Your task to perform on an android device: see tabs open on other devices in the chrome app Image 0: 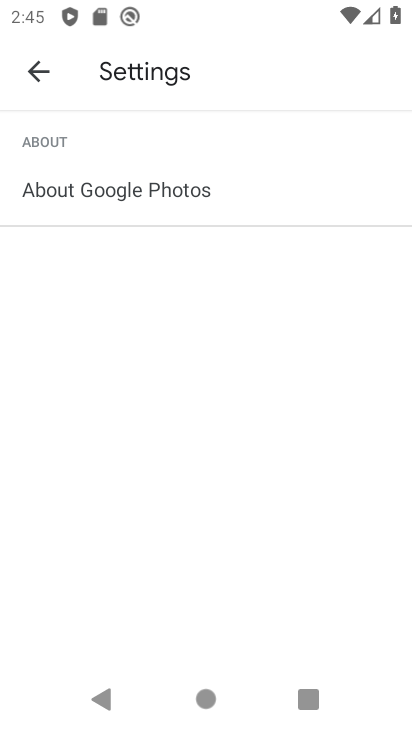
Step 0: click (25, 58)
Your task to perform on an android device: see tabs open on other devices in the chrome app Image 1: 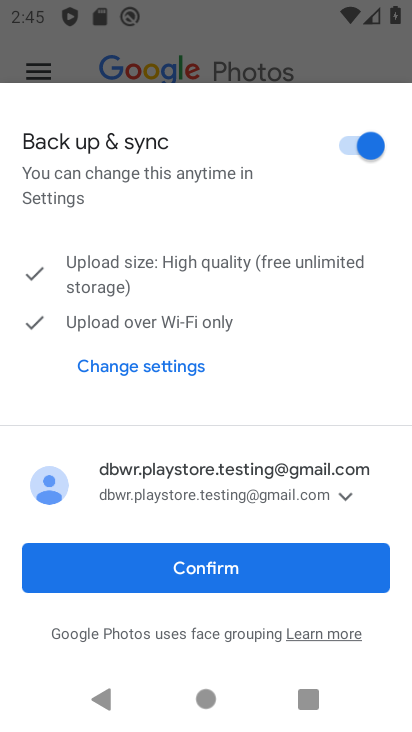
Step 1: click (317, 563)
Your task to perform on an android device: see tabs open on other devices in the chrome app Image 2: 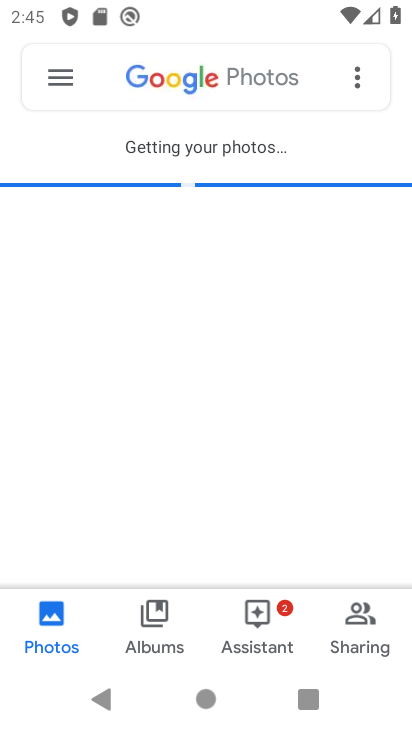
Step 2: press home button
Your task to perform on an android device: see tabs open on other devices in the chrome app Image 3: 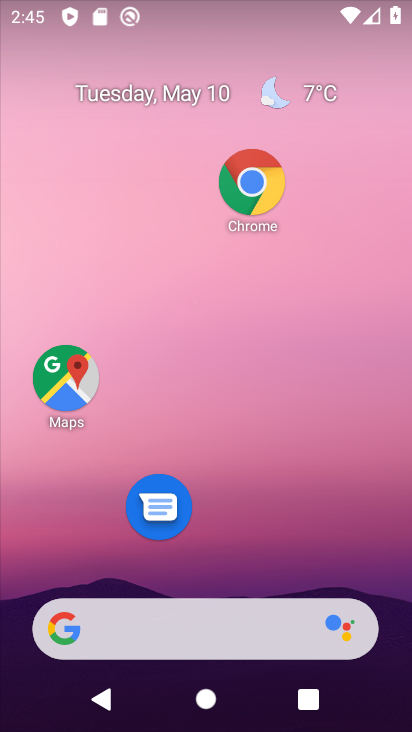
Step 3: click (276, 218)
Your task to perform on an android device: see tabs open on other devices in the chrome app Image 4: 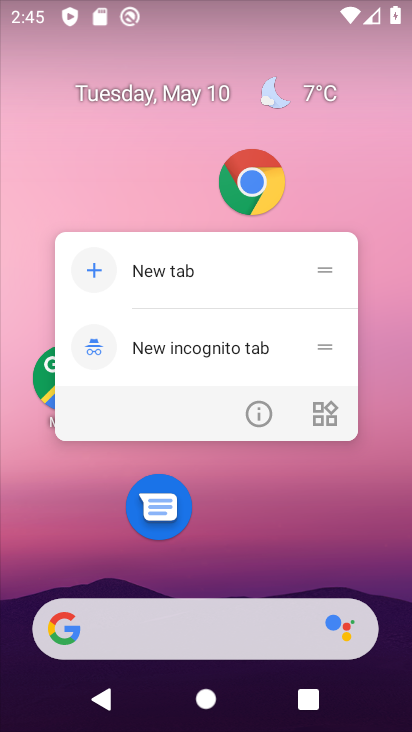
Step 4: click (264, 193)
Your task to perform on an android device: see tabs open on other devices in the chrome app Image 5: 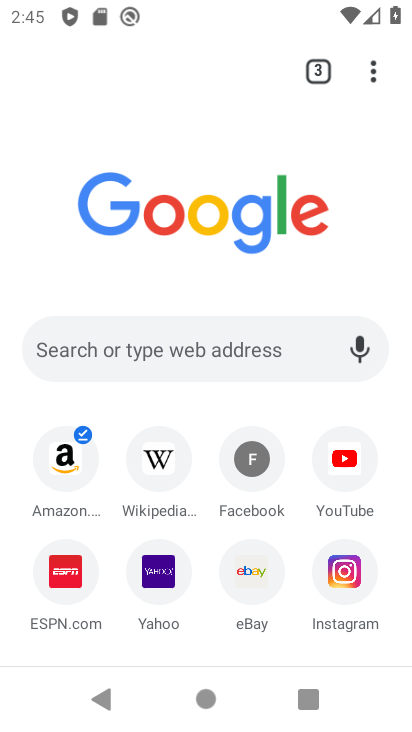
Step 5: click (376, 85)
Your task to perform on an android device: see tabs open on other devices in the chrome app Image 6: 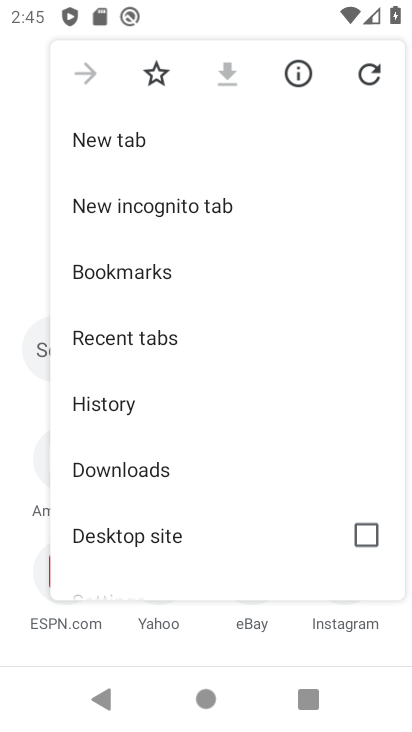
Step 6: click (36, 272)
Your task to perform on an android device: see tabs open on other devices in the chrome app Image 7: 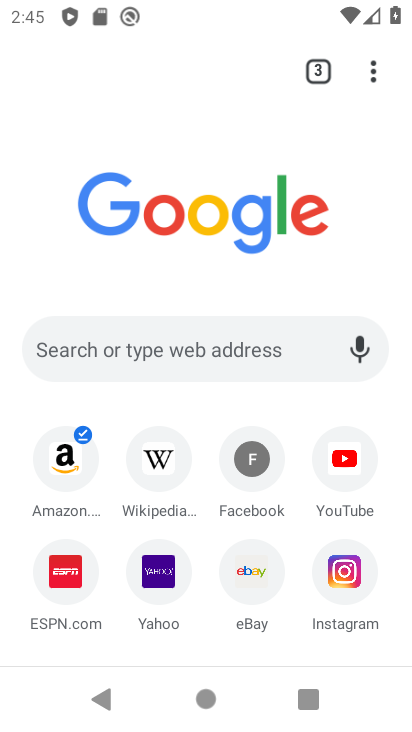
Step 7: click (373, 86)
Your task to perform on an android device: see tabs open on other devices in the chrome app Image 8: 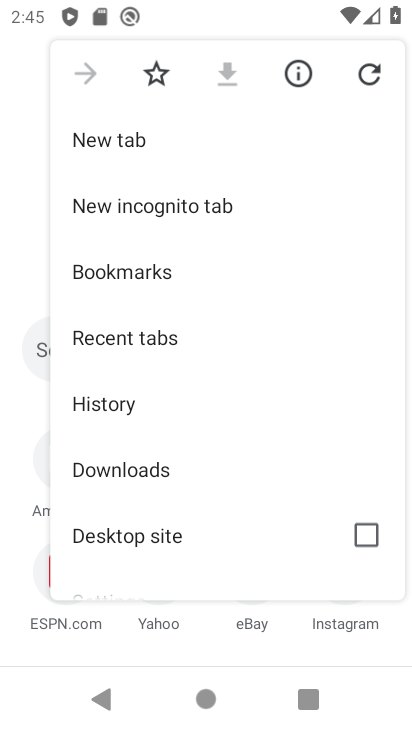
Step 8: click (154, 357)
Your task to perform on an android device: see tabs open on other devices in the chrome app Image 9: 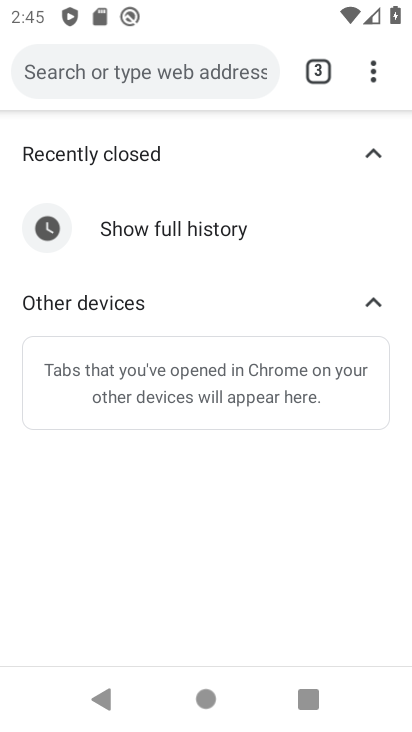
Step 9: task complete